Your task to perform on an android device: open sync settings in chrome Image 0: 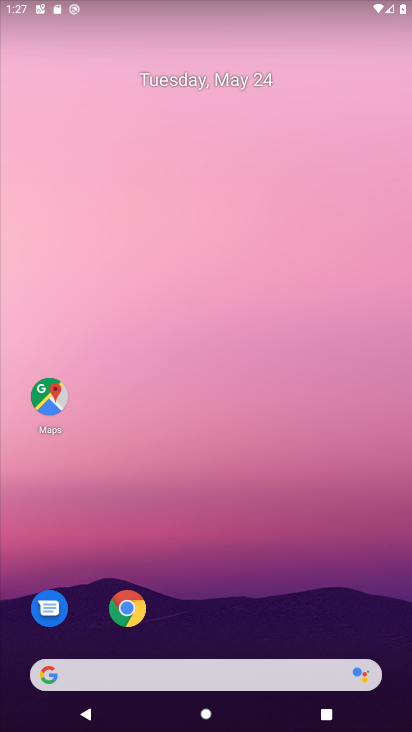
Step 0: click (111, 604)
Your task to perform on an android device: open sync settings in chrome Image 1: 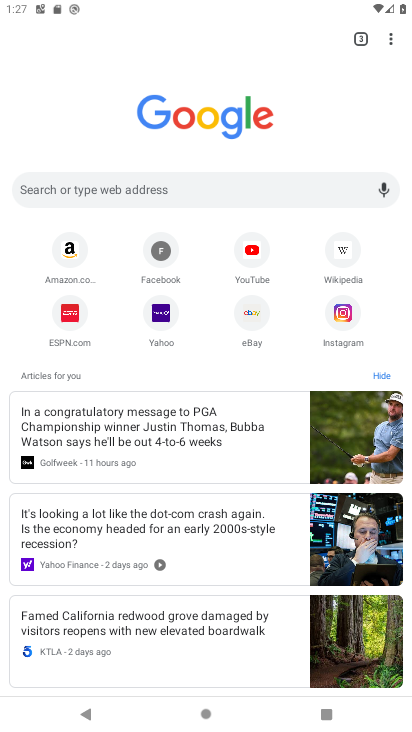
Step 1: click (396, 46)
Your task to perform on an android device: open sync settings in chrome Image 2: 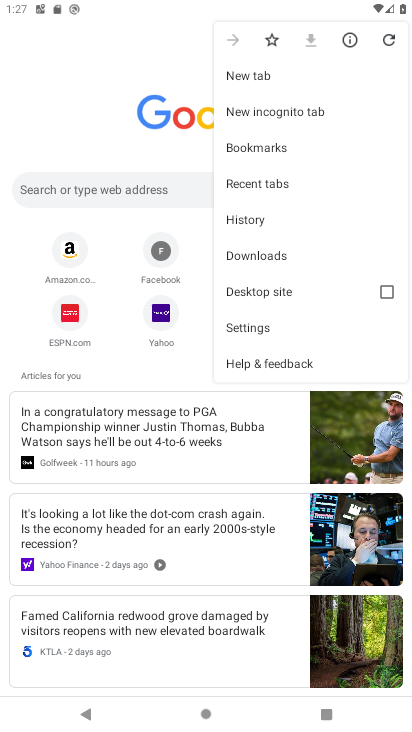
Step 2: click (300, 317)
Your task to perform on an android device: open sync settings in chrome Image 3: 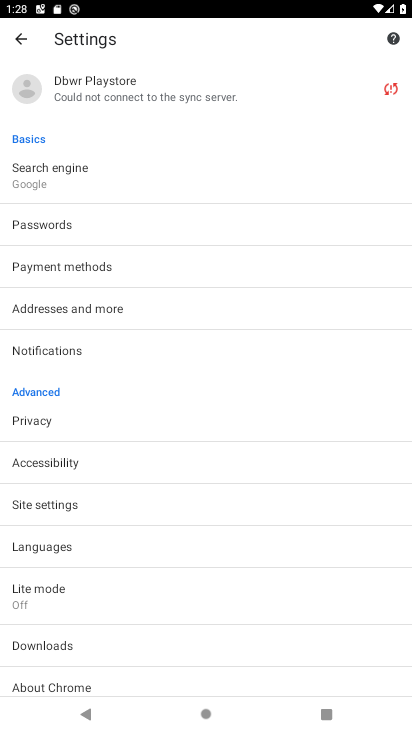
Step 3: click (121, 77)
Your task to perform on an android device: open sync settings in chrome Image 4: 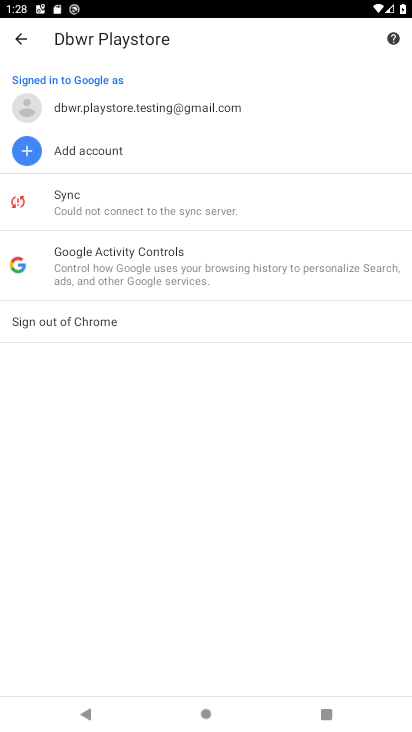
Step 4: task complete